Your task to perform on an android device: toggle show notifications on the lock screen Image 0: 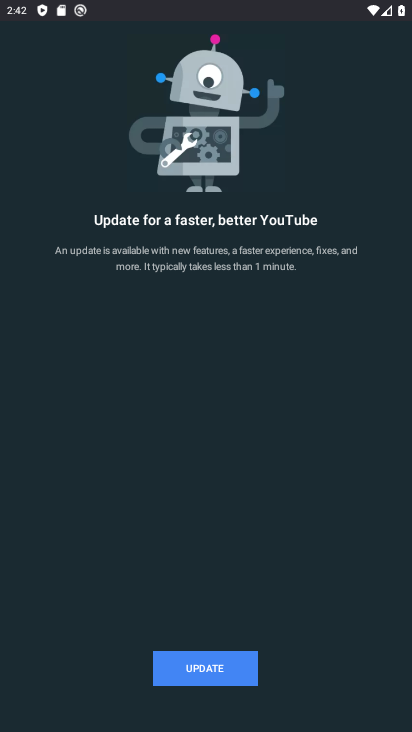
Step 0: click (204, 660)
Your task to perform on an android device: toggle show notifications on the lock screen Image 1: 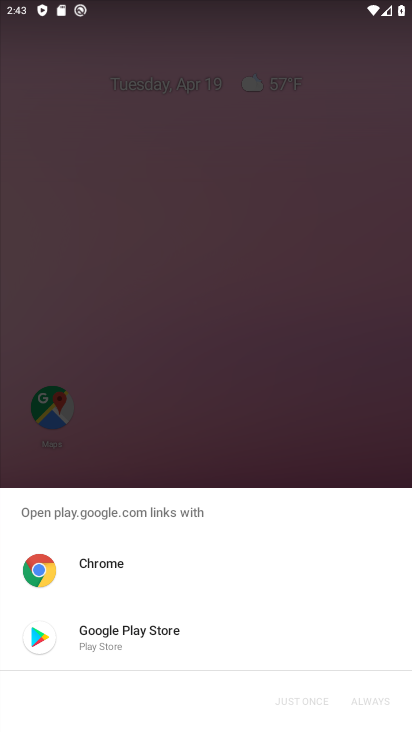
Step 1: press home button
Your task to perform on an android device: toggle show notifications on the lock screen Image 2: 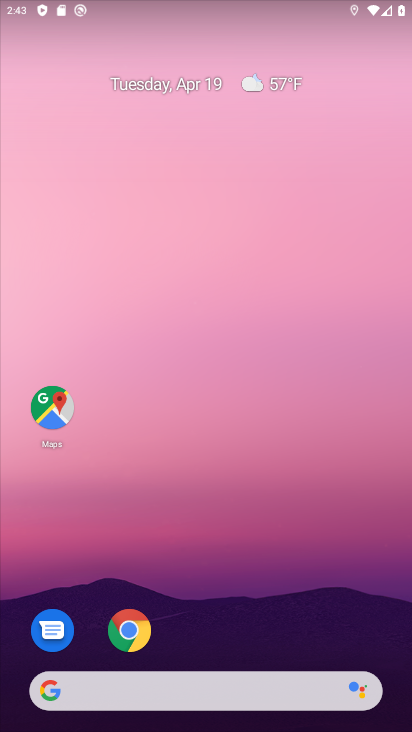
Step 2: drag from (243, 415) to (275, 196)
Your task to perform on an android device: toggle show notifications on the lock screen Image 3: 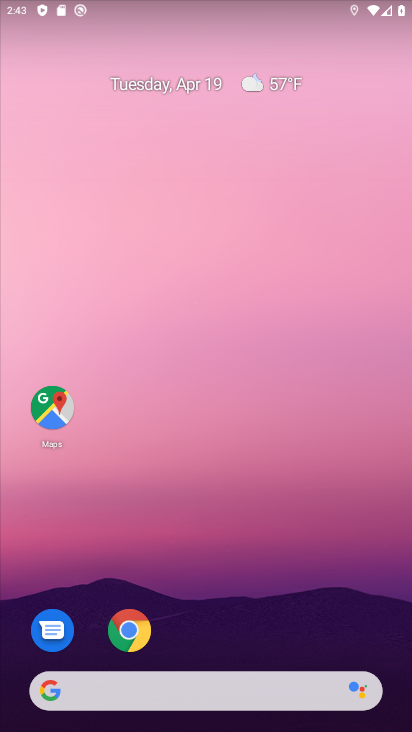
Step 3: drag from (236, 581) to (279, 199)
Your task to perform on an android device: toggle show notifications on the lock screen Image 4: 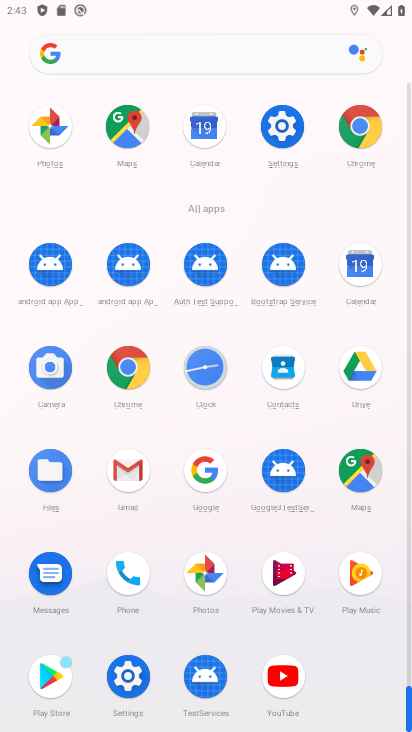
Step 4: click (282, 141)
Your task to perform on an android device: toggle show notifications on the lock screen Image 5: 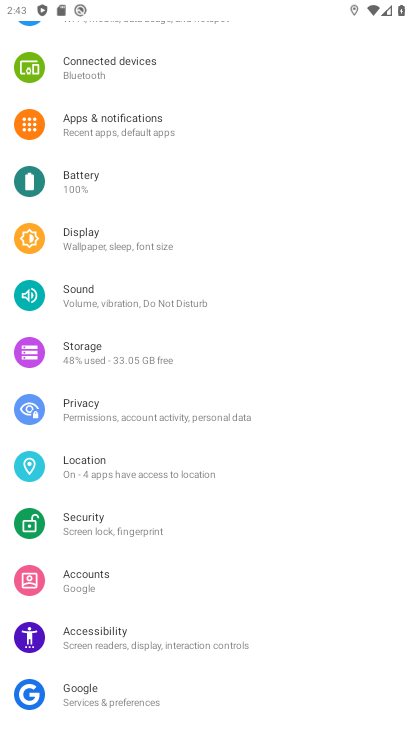
Step 5: click (166, 136)
Your task to perform on an android device: toggle show notifications on the lock screen Image 6: 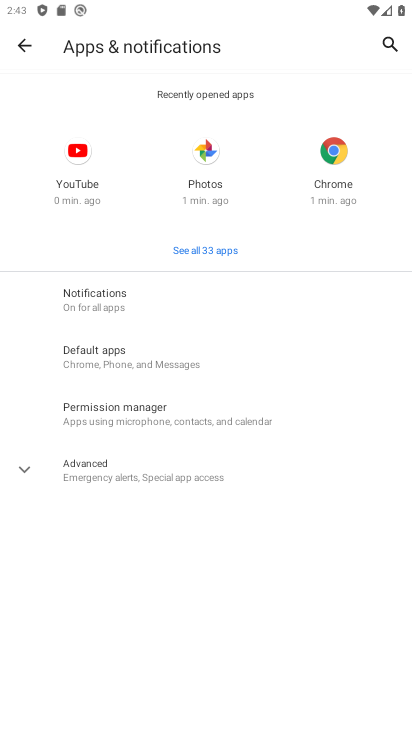
Step 6: click (124, 301)
Your task to perform on an android device: toggle show notifications on the lock screen Image 7: 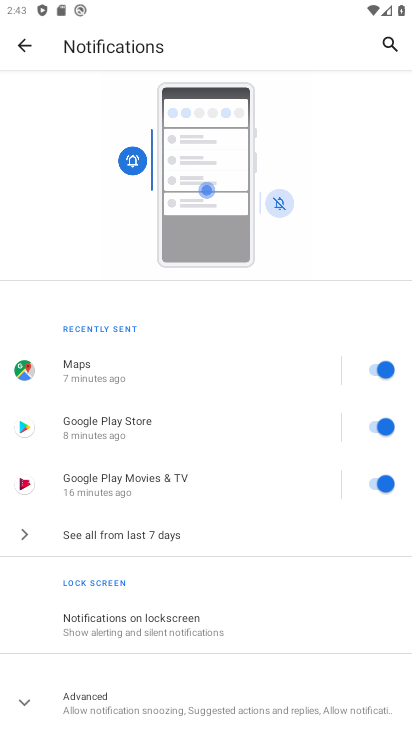
Step 7: drag from (230, 687) to (237, 392)
Your task to perform on an android device: toggle show notifications on the lock screen Image 8: 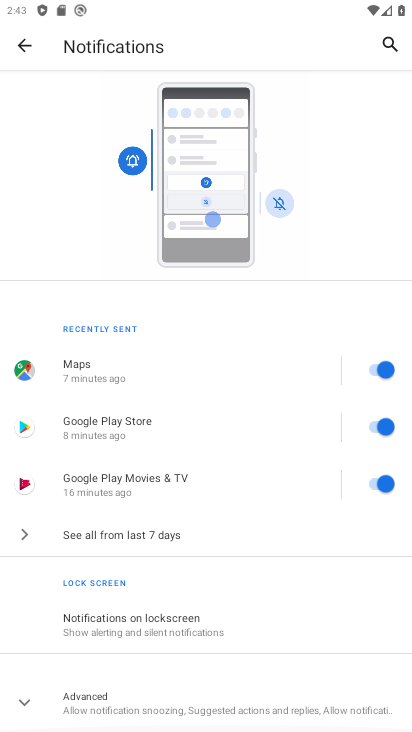
Step 8: click (176, 696)
Your task to perform on an android device: toggle show notifications on the lock screen Image 9: 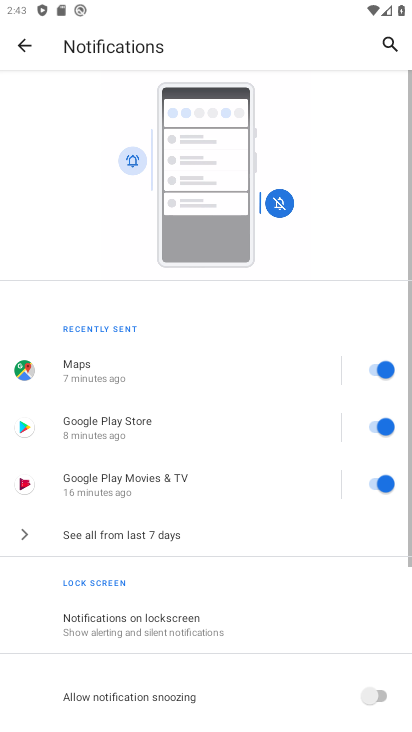
Step 9: click (190, 621)
Your task to perform on an android device: toggle show notifications on the lock screen Image 10: 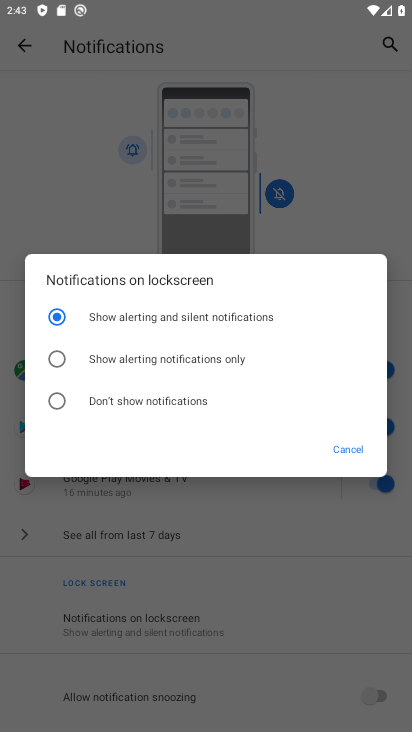
Step 10: click (198, 405)
Your task to perform on an android device: toggle show notifications on the lock screen Image 11: 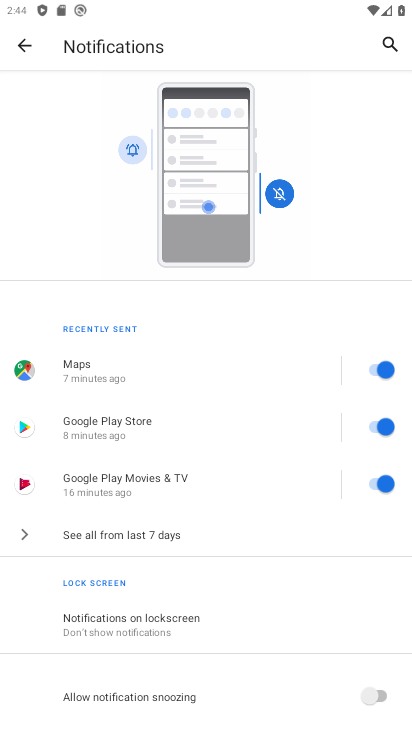
Step 11: task complete